Your task to perform on an android device: delete the emails in spam in the gmail app Image 0: 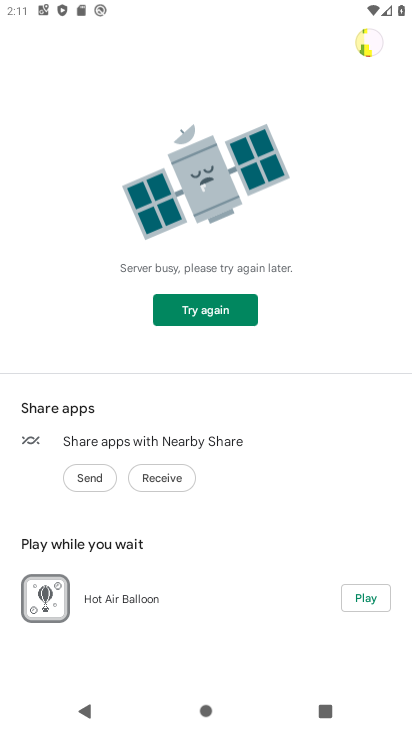
Step 0: press home button
Your task to perform on an android device: delete the emails in spam in the gmail app Image 1: 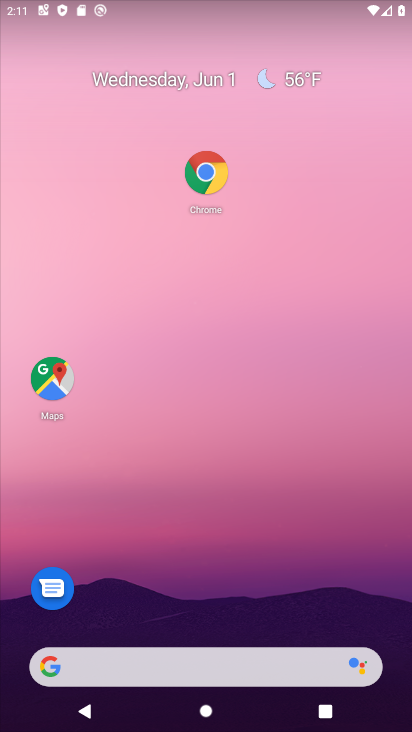
Step 1: drag from (209, 610) to (206, 43)
Your task to perform on an android device: delete the emails in spam in the gmail app Image 2: 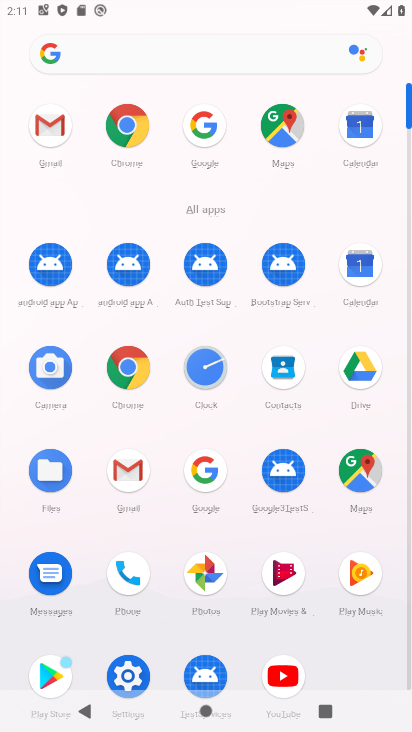
Step 2: click (56, 126)
Your task to perform on an android device: delete the emails in spam in the gmail app Image 3: 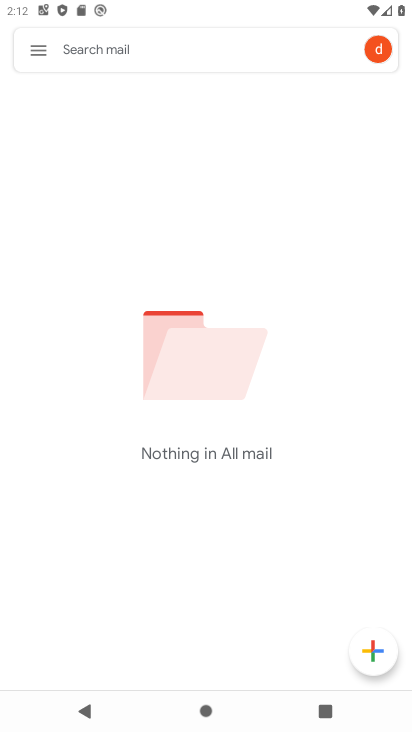
Step 3: press back button
Your task to perform on an android device: delete the emails in spam in the gmail app Image 4: 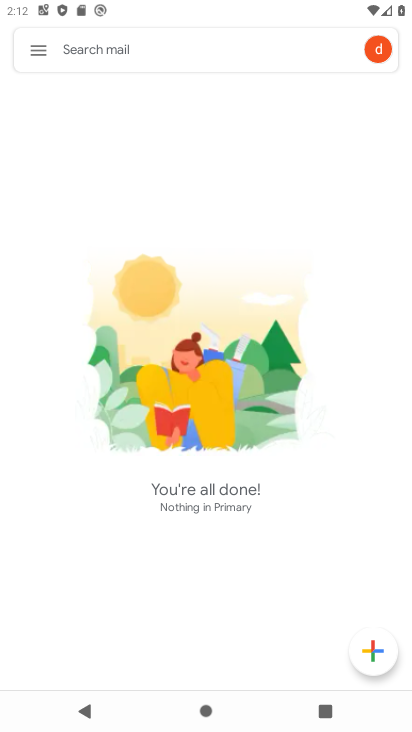
Step 4: click (42, 68)
Your task to perform on an android device: delete the emails in spam in the gmail app Image 5: 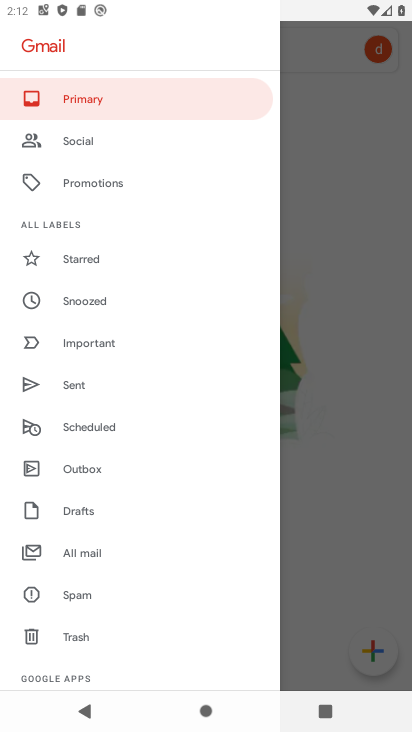
Step 5: click (87, 582)
Your task to perform on an android device: delete the emails in spam in the gmail app Image 6: 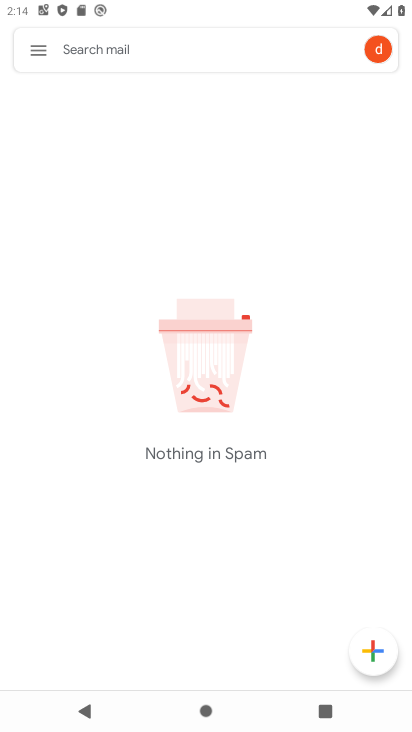
Step 6: task complete